Your task to perform on an android device: Open sound settings Image 0: 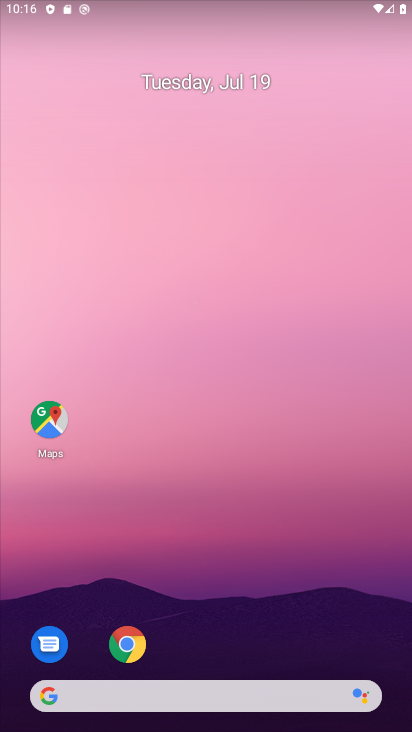
Step 0: drag from (165, 688) to (156, 12)
Your task to perform on an android device: Open sound settings Image 1: 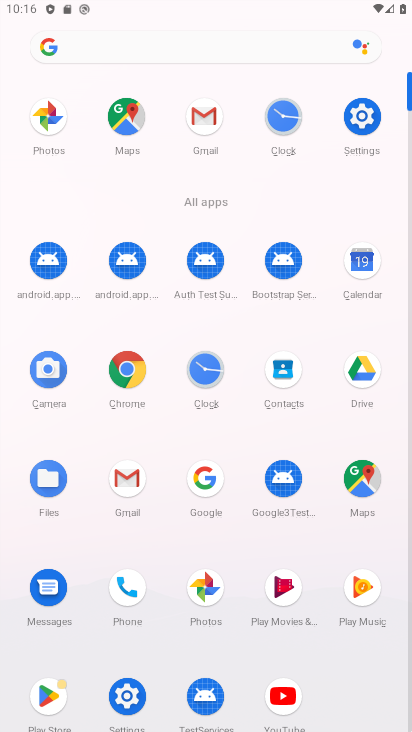
Step 1: click (367, 133)
Your task to perform on an android device: Open sound settings Image 2: 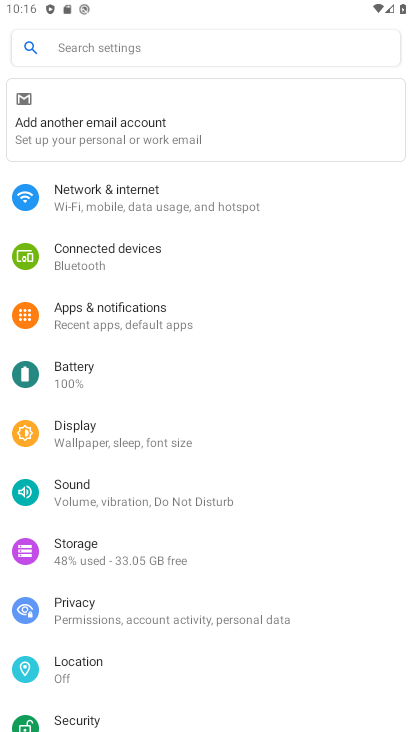
Step 2: click (117, 490)
Your task to perform on an android device: Open sound settings Image 3: 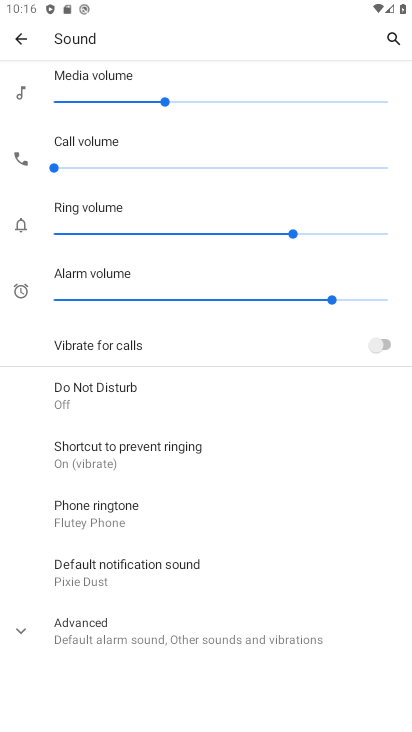
Step 3: task complete